Your task to perform on an android device: Go to Yahoo.com Image 0: 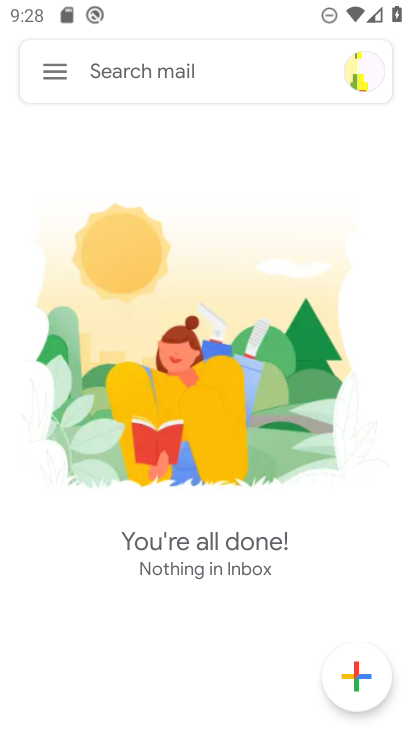
Step 0: press back button
Your task to perform on an android device: Go to Yahoo.com Image 1: 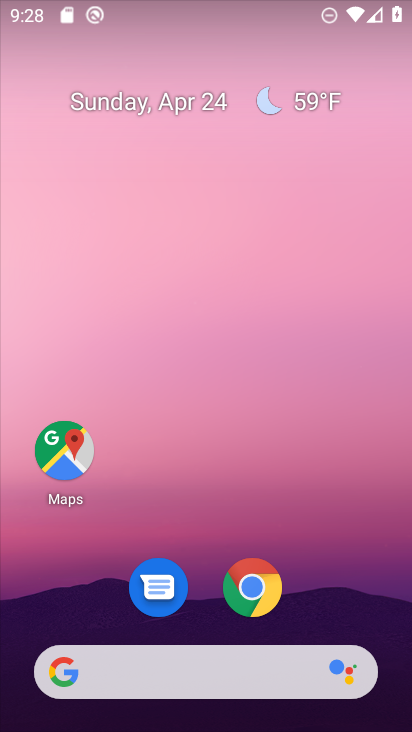
Step 1: click (249, 587)
Your task to perform on an android device: Go to Yahoo.com Image 2: 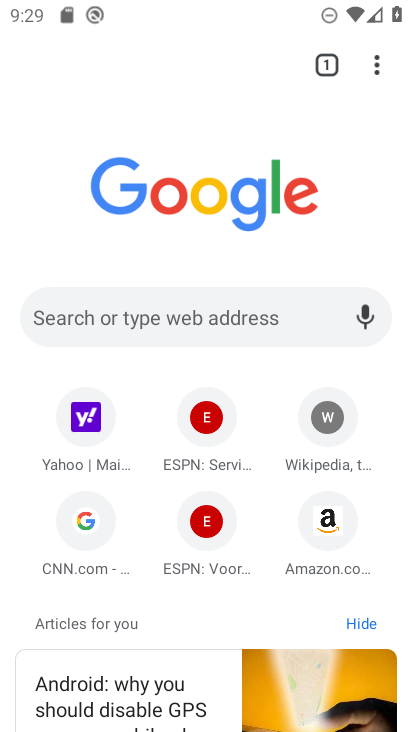
Step 2: click (176, 309)
Your task to perform on an android device: Go to Yahoo.com Image 3: 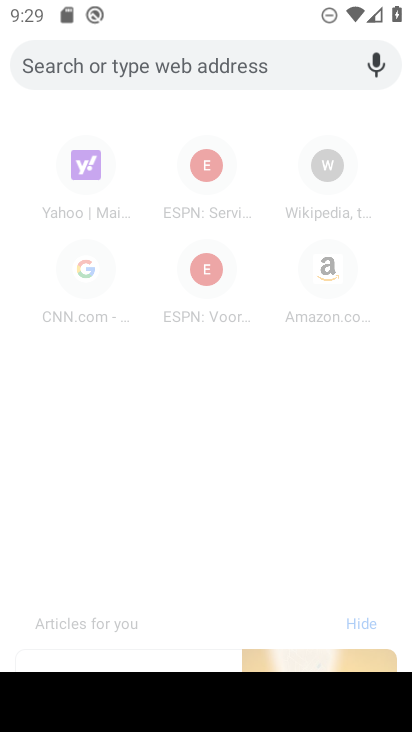
Step 3: type "Yahoo.com"
Your task to perform on an android device: Go to Yahoo.com Image 4: 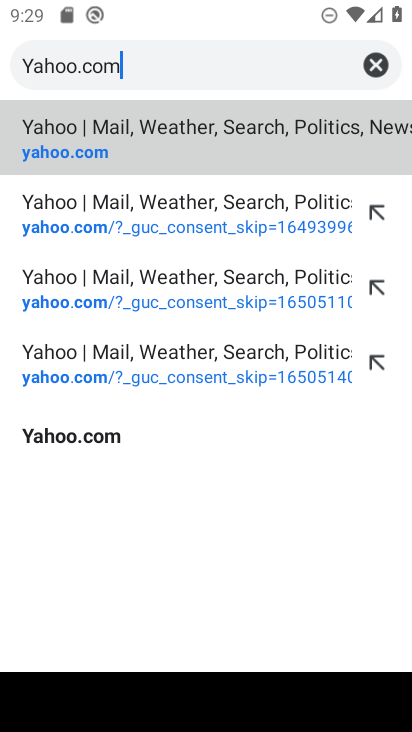
Step 4: click (87, 445)
Your task to perform on an android device: Go to Yahoo.com Image 5: 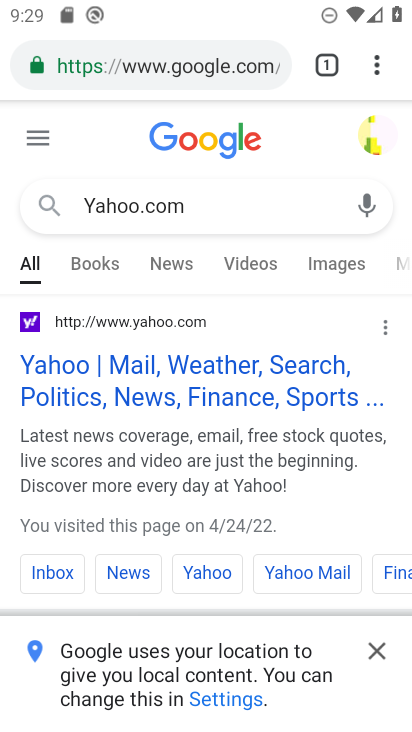
Step 5: click (115, 401)
Your task to perform on an android device: Go to Yahoo.com Image 6: 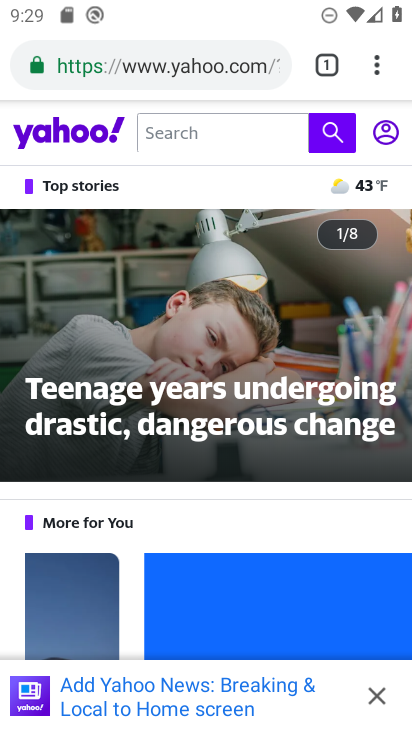
Step 6: task complete